Your task to perform on an android device: check android version Image 0: 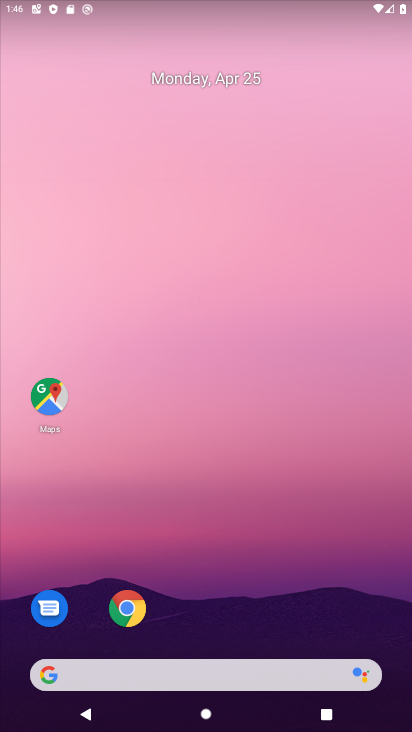
Step 0: drag from (195, 378) to (188, 189)
Your task to perform on an android device: check android version Image 1: 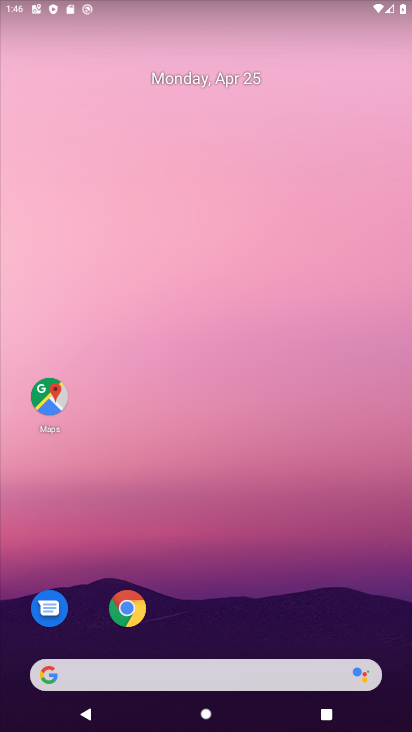
Step 1: drag from (184, 601) to (213, 228)
Your task to perform on an android device: check android version Image 2: 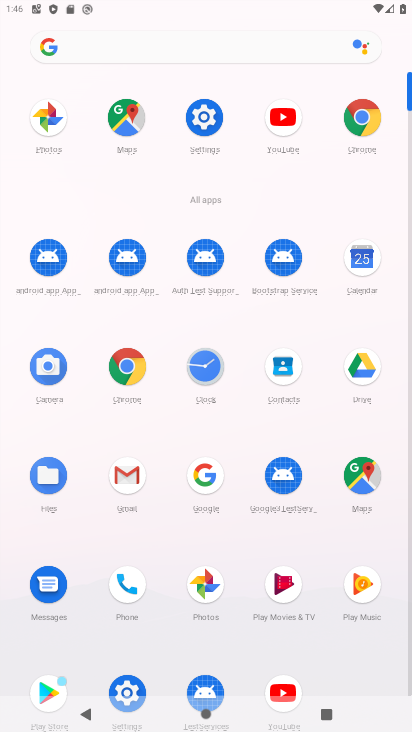
Step 2: click (123, 682)
Your task to perform on an android device: check android version Image 3: 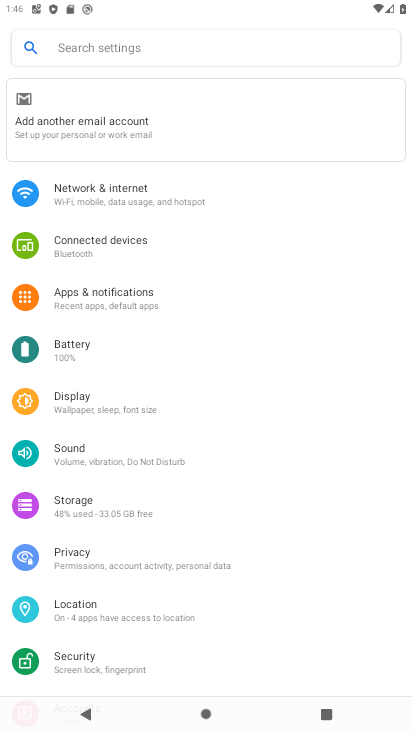
Step 3: drag from (128, 644) to (124, 284)
Your task to perform on an android device: check android version Image 4: 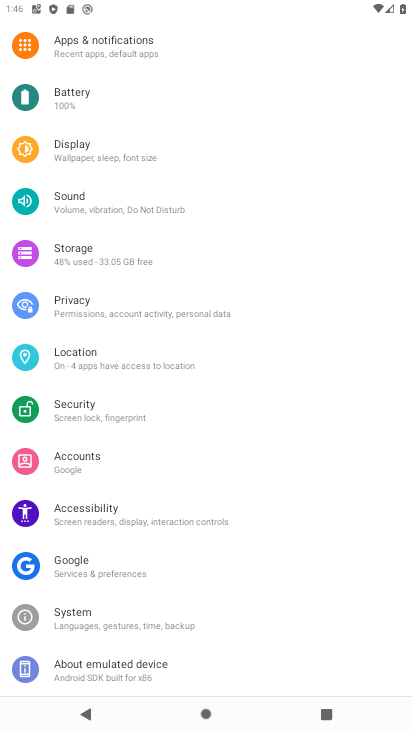
Step 4: drag from (153, 599) to (153, 435)
Your task to perform on an android device: check android version Image 5: 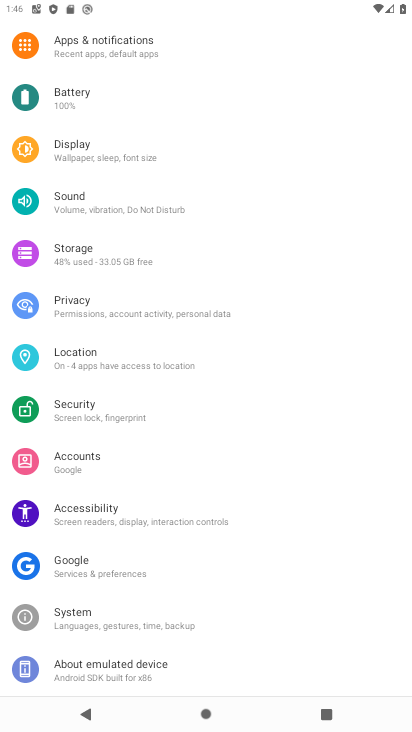
Step 5: click (160, 659)
Your task to perform on an android device: check android version Image 6: 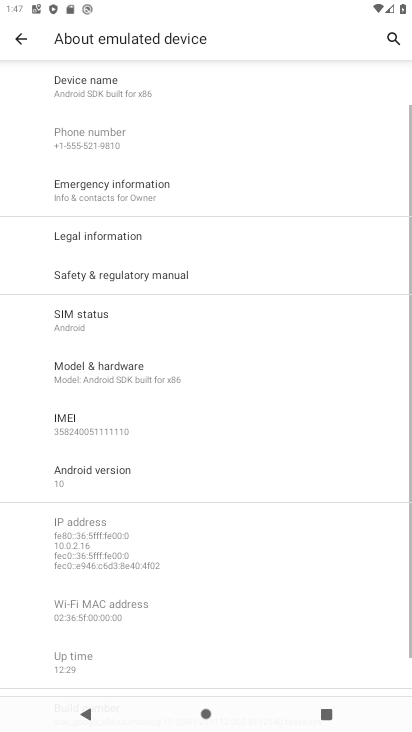
Step 6: click (100, 469)
Your task to perform on an android device: check android version Image 7: 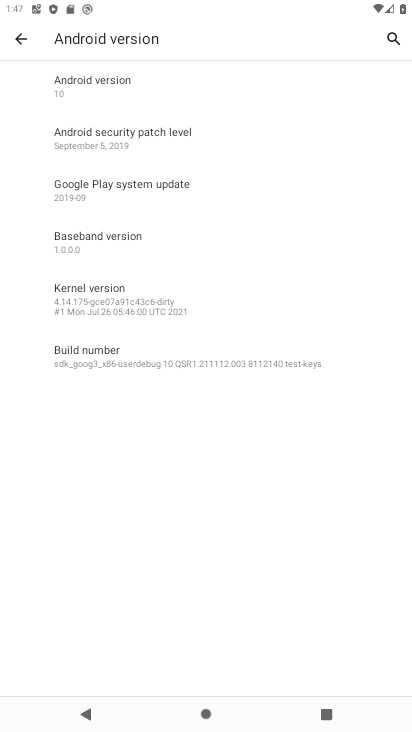
Step 7: task complete